Your task to perform on an android device: Go to accessibility settings Image 0: 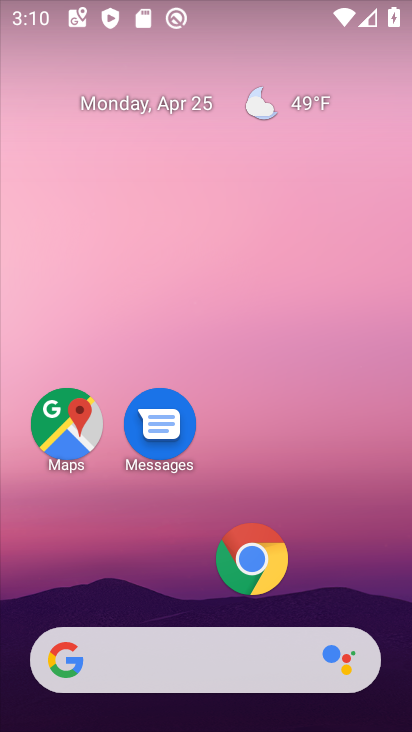
Step 0: drag from (173, 529) to (206, 36)
Your task to perform on an android device: Go to accessibility settings Image 1: 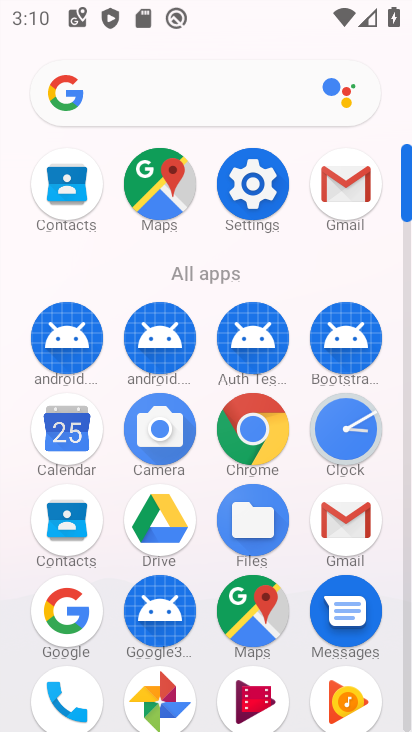
Step 1: click (266, 183)
Your task to perform on an android device: Go to accessibility settings Image 2: 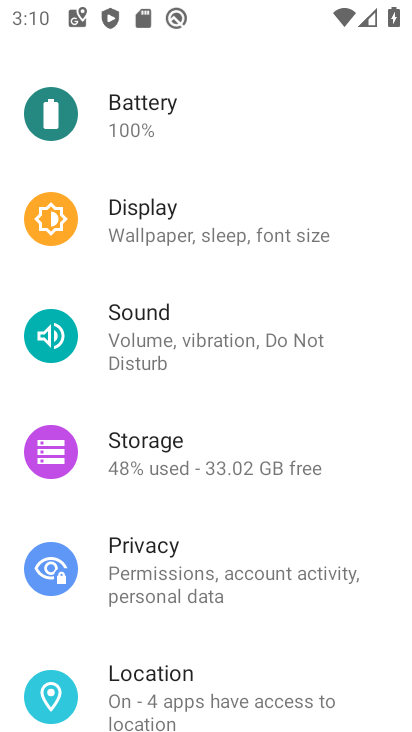
Step 2: drag from (245, 669) to (269, 126)
Your task to perform on an android device: Go to accessibility settings Image 3: 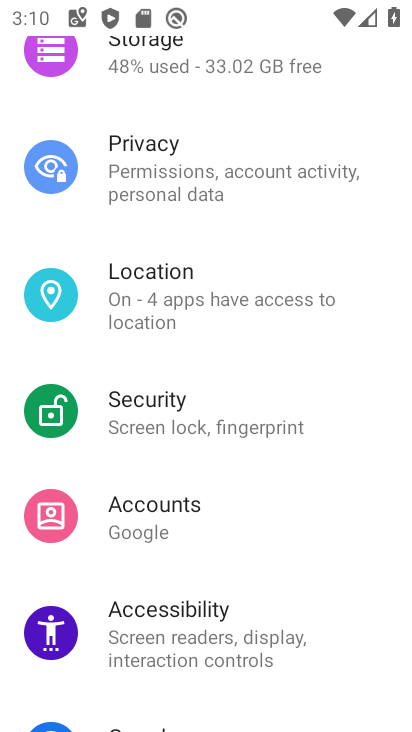
Step 3: click (213, 610)
Your task to perform on an android device: Go to accessibility settings Image 4: 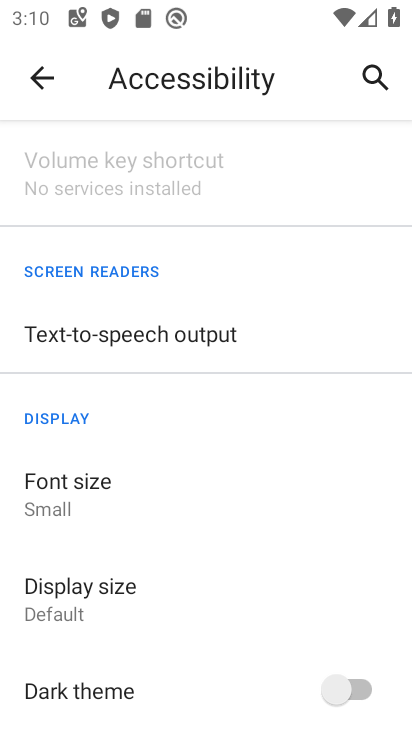
Step 4: task complete